Your task to perform on an android device: open app "File Manager" (install if not already installed) Image 0: 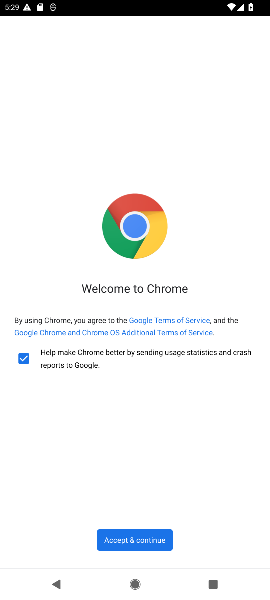
Step 0: press home button
Your task to perform on an android device: open app "File Manager" (install if not already installed) Image 1: 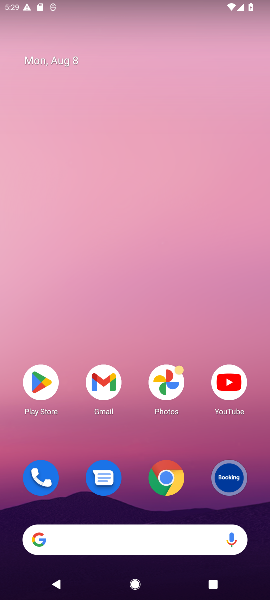
Step 1: click (43, 377)
Your task to perform on an android device: open app "File Manager" (install if not already installed) Image 2: 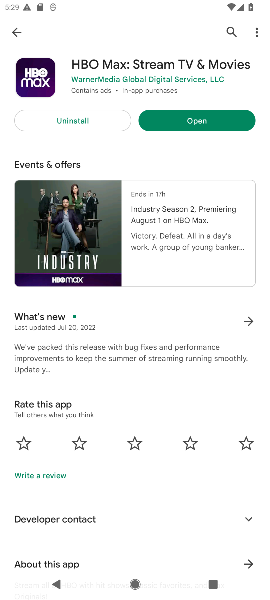
Step 2: click (148, 31)
Your task to perform on an android device: open app "File Manager" (install if not already installed) Image 3: 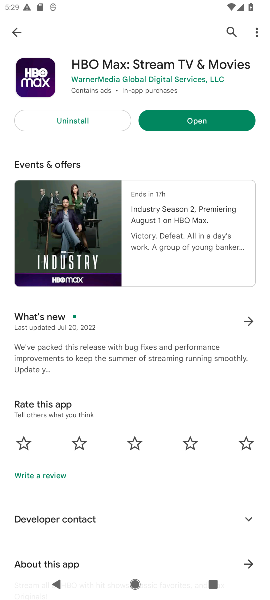
Step 3: click (13, 28)
Your task to perform on an android device: open app "File Manager" (install if not already installed) Image 4: 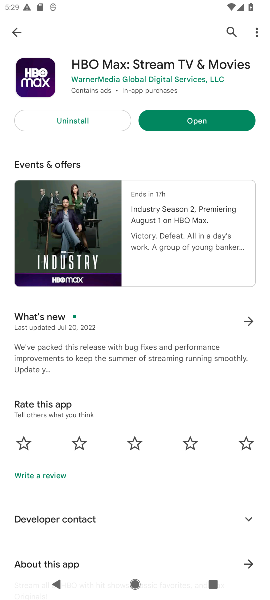
Step 4: click (226, 28)
Your task to perform on an android device: open app "File Manager" (install if not already installed) Image 5: 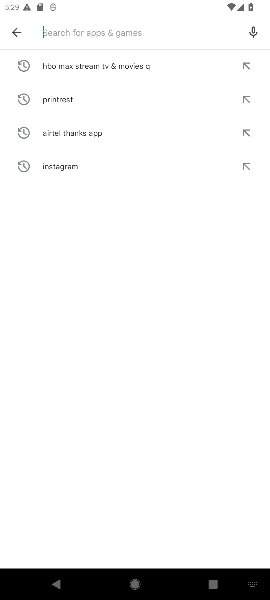
Step 5: type "File manager"
Your task to perform on an android device: open app "File Manager" (install if not already installed) Image 6: 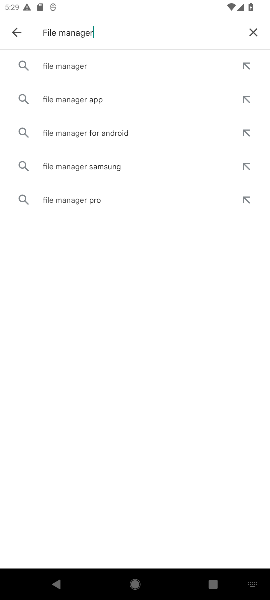
Step 6: click (69, 69)
Your task to perform on an android device: open app "File Manager" (install if not already installed) Image 7: 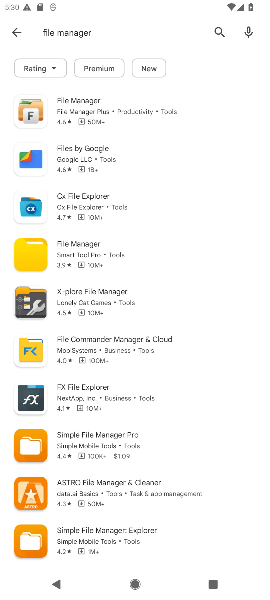
Step 7: click (79, 111)
Your task to perform on an android device: open app "File Manager" (install if not already installed) Image 8: 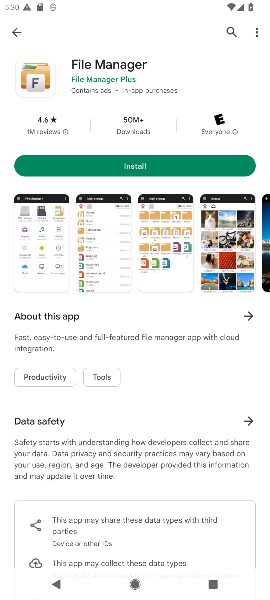
Step 8: click (99, 168)
Your task to perform on an android device: open app "File Manager" (install if not already installed) Image 9: 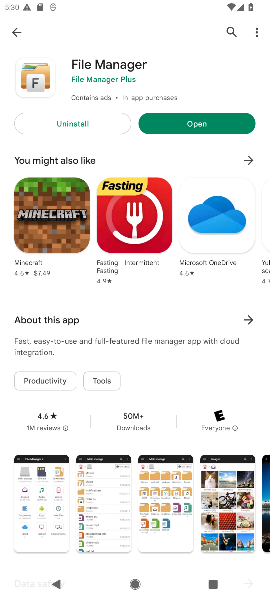
Step 9: click (169, 118)
Your task to perform on an android device: open app "File Manager" (install if not already installed) Image 10: 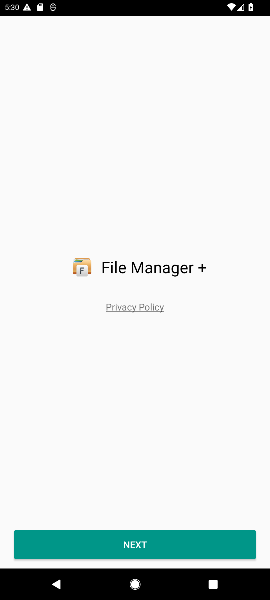
Step 10: task complete